Your task to perform on an android device: Clear the shopping cart on amazon. Image 0: 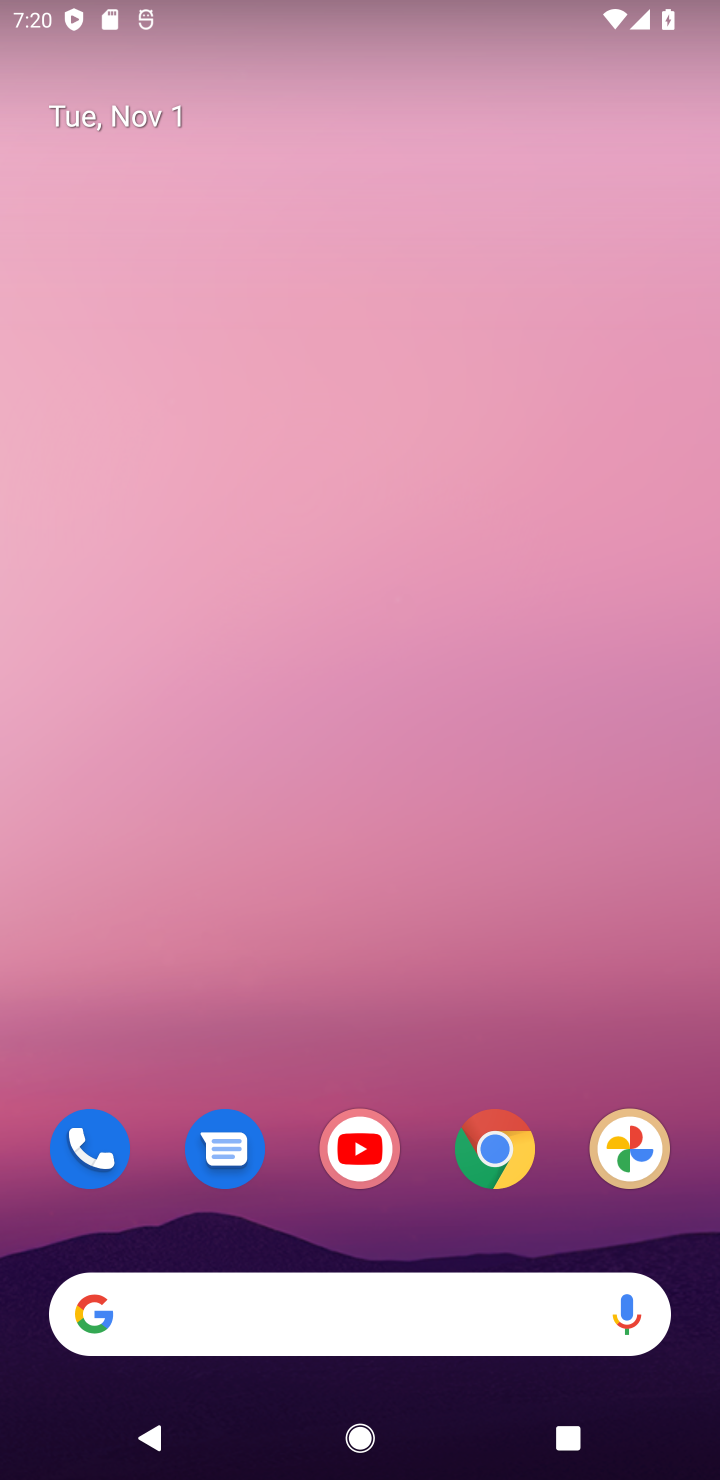
Step 0: drag from (467, 920) to (547, 156)
Your task to perform on an android device: Clear the shopping cart on amazon. Image 1: 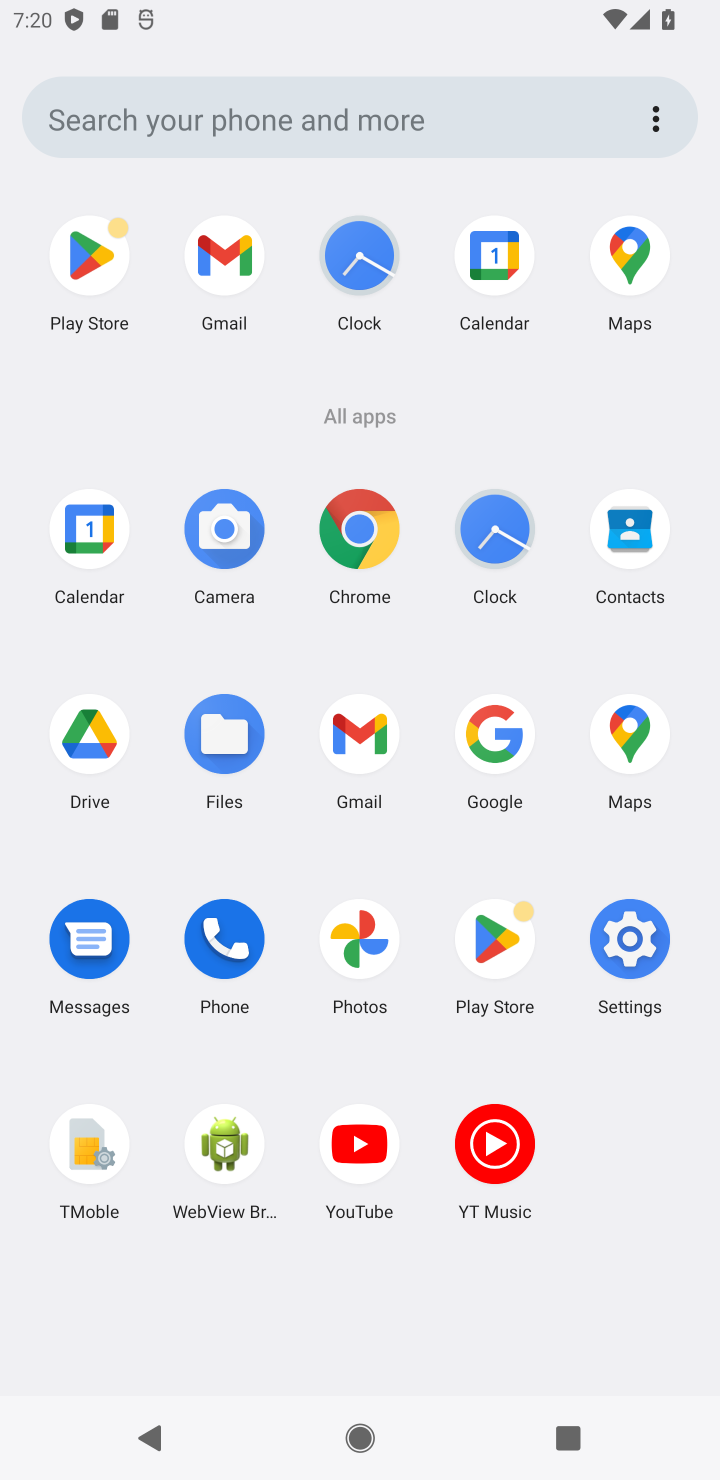
Step 1: click (362, 528)
Your task to perform on an android device: Clear the shopping cart on amazon. Image 2: 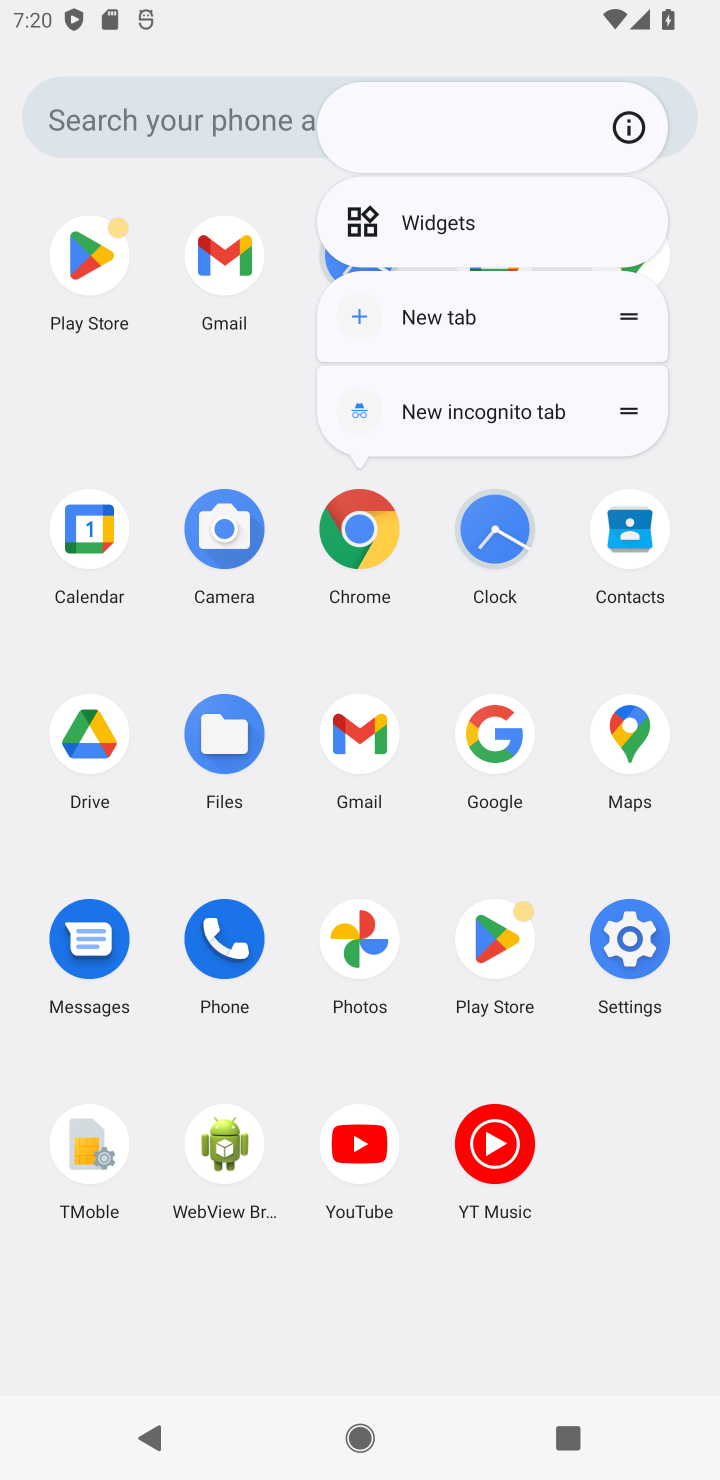
Step 2: click (362, 528)
Your task to perform on an android device: Clear the shopping cart on amazon. Image 3: 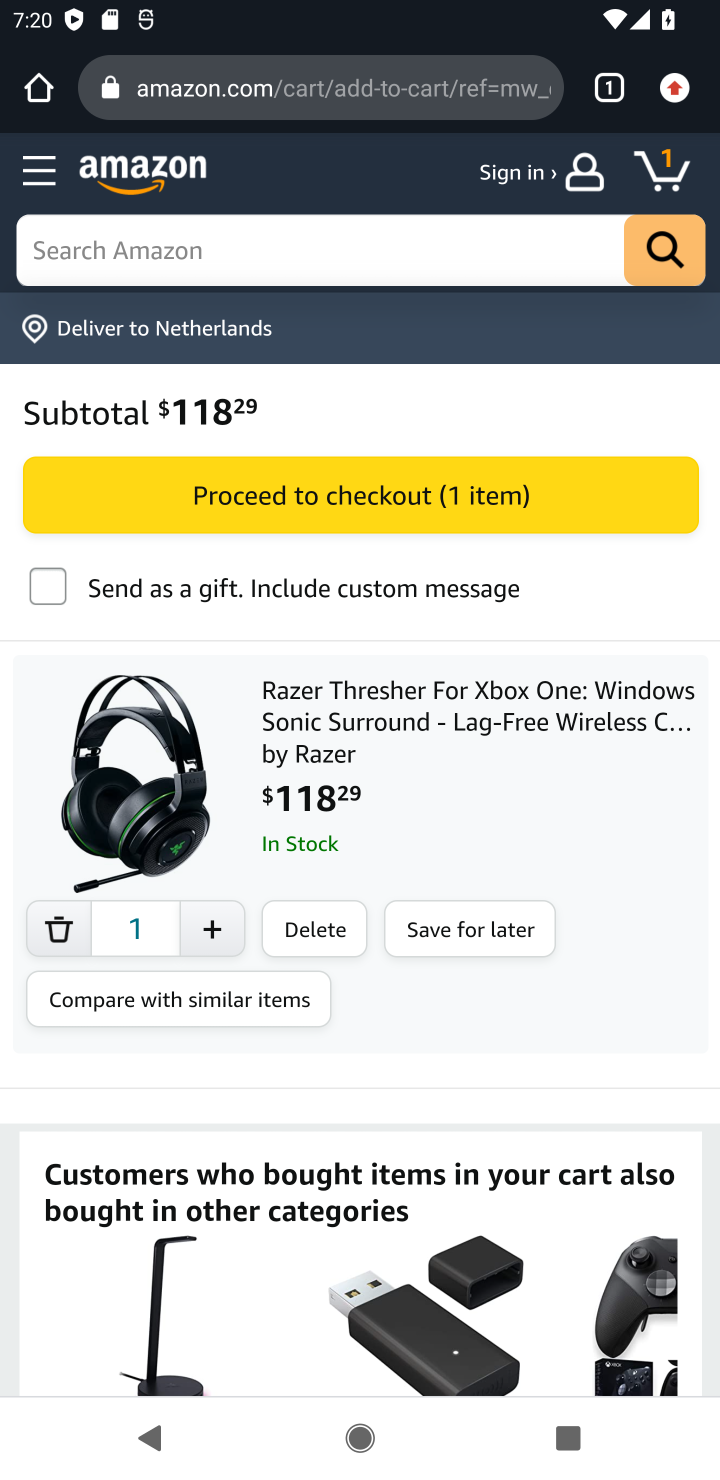
Step 3: click (363, 83)
Your task to perform on an android device: Clear the shopping cart on amazon. Image 4: 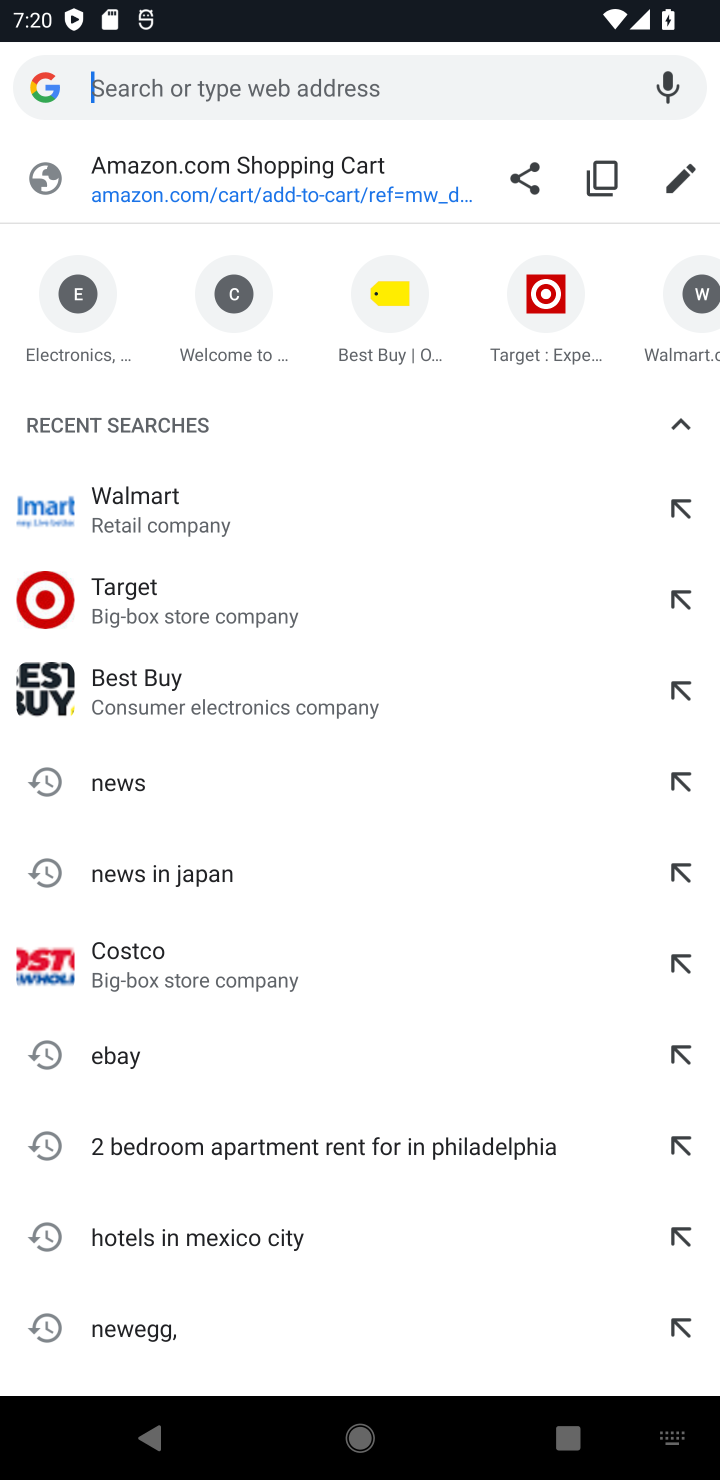
Step 4: type "amazon.com"
Your task to perform on an android device: Clear the shopping cart on amazon. Image 5: 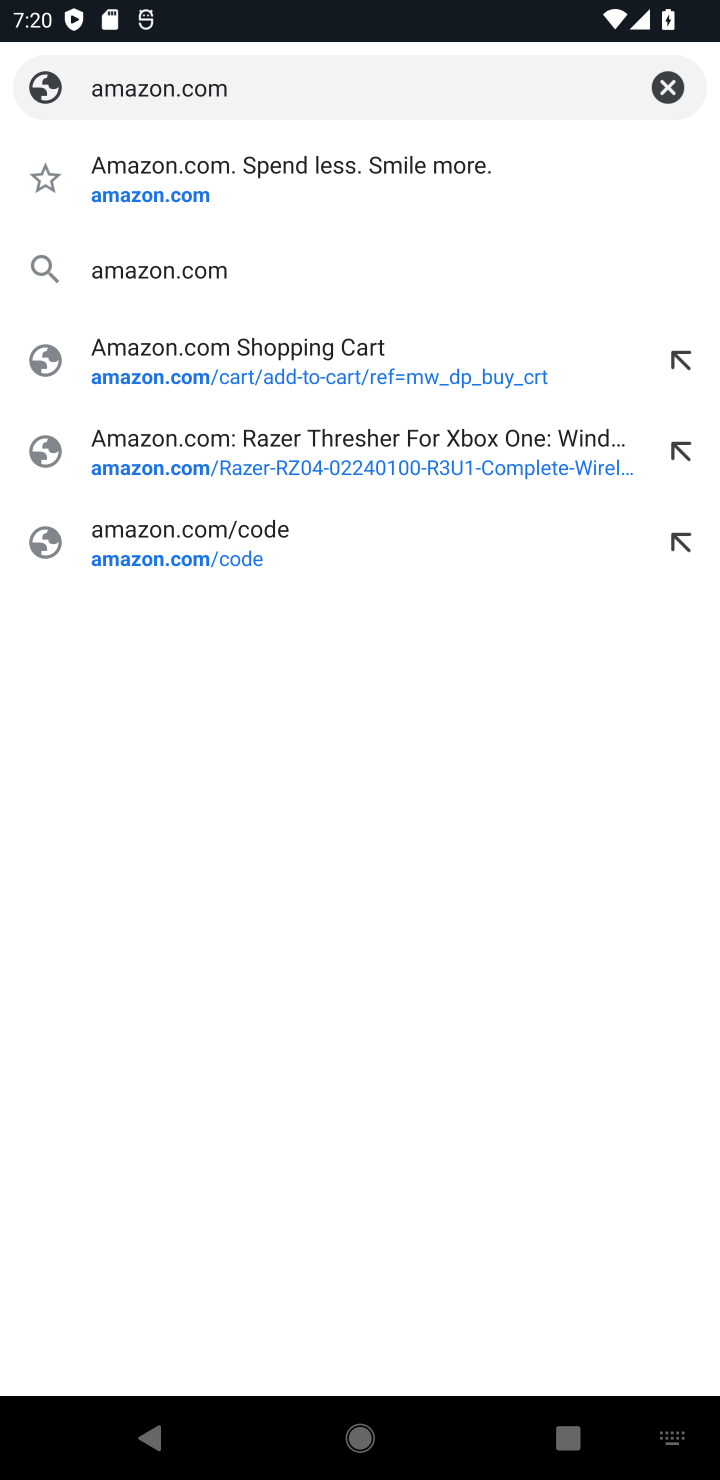
Step 5: press enter
Your task to perform on an android device: Clear the shopping cart on amazon. Image 6: 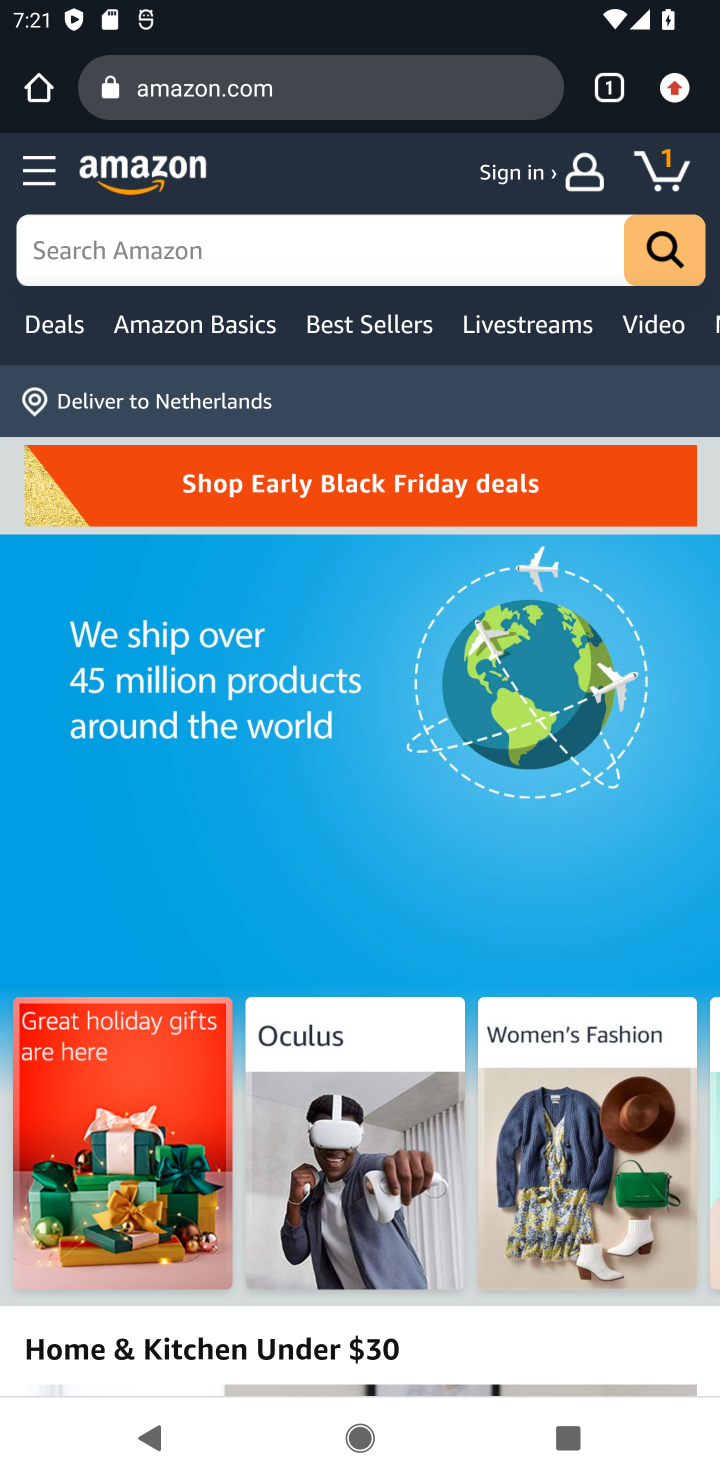
Step 6: click (657, 176)
Your task to perform on an android device: Clear the shopping cart on amazon. Image 7: 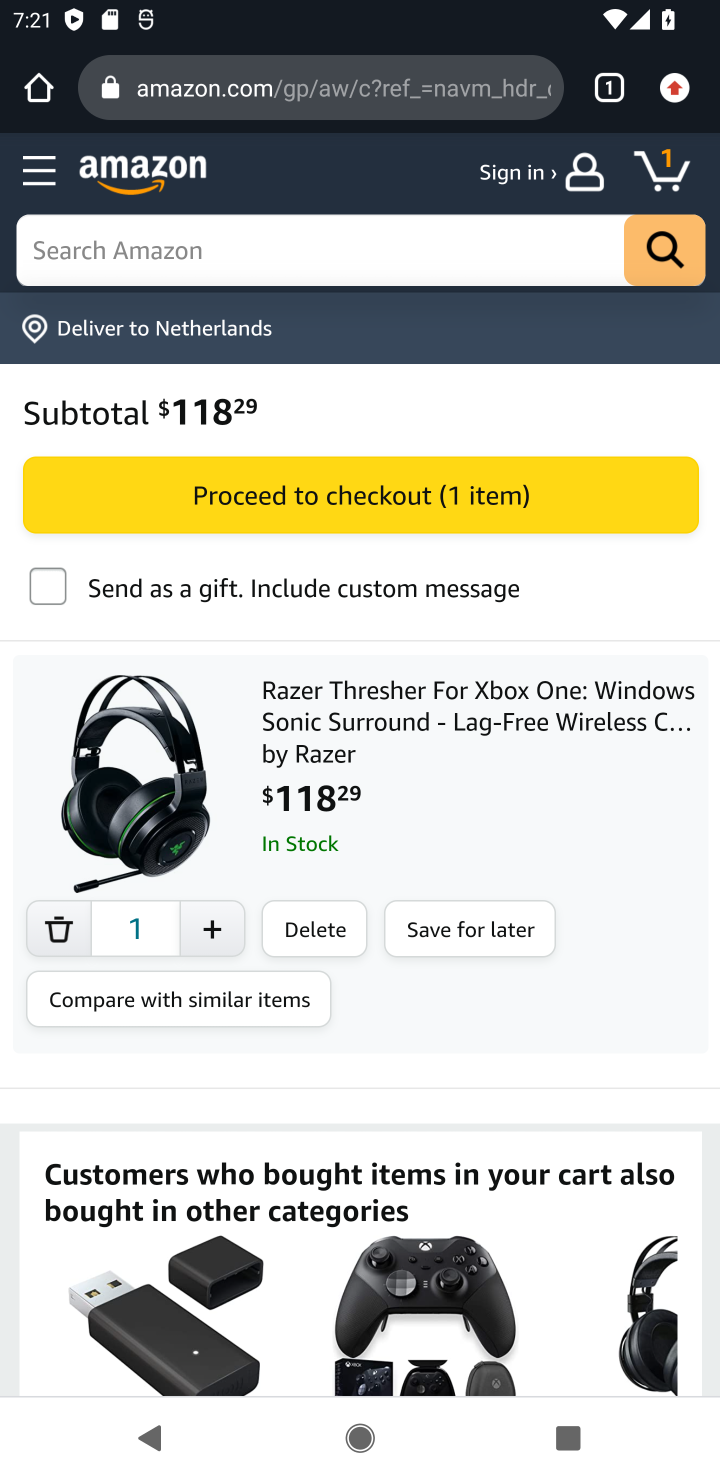
Step 7: click (46, 922)
Your task to perform on an android device: Clear the shopping cart on amazon. Image 8: 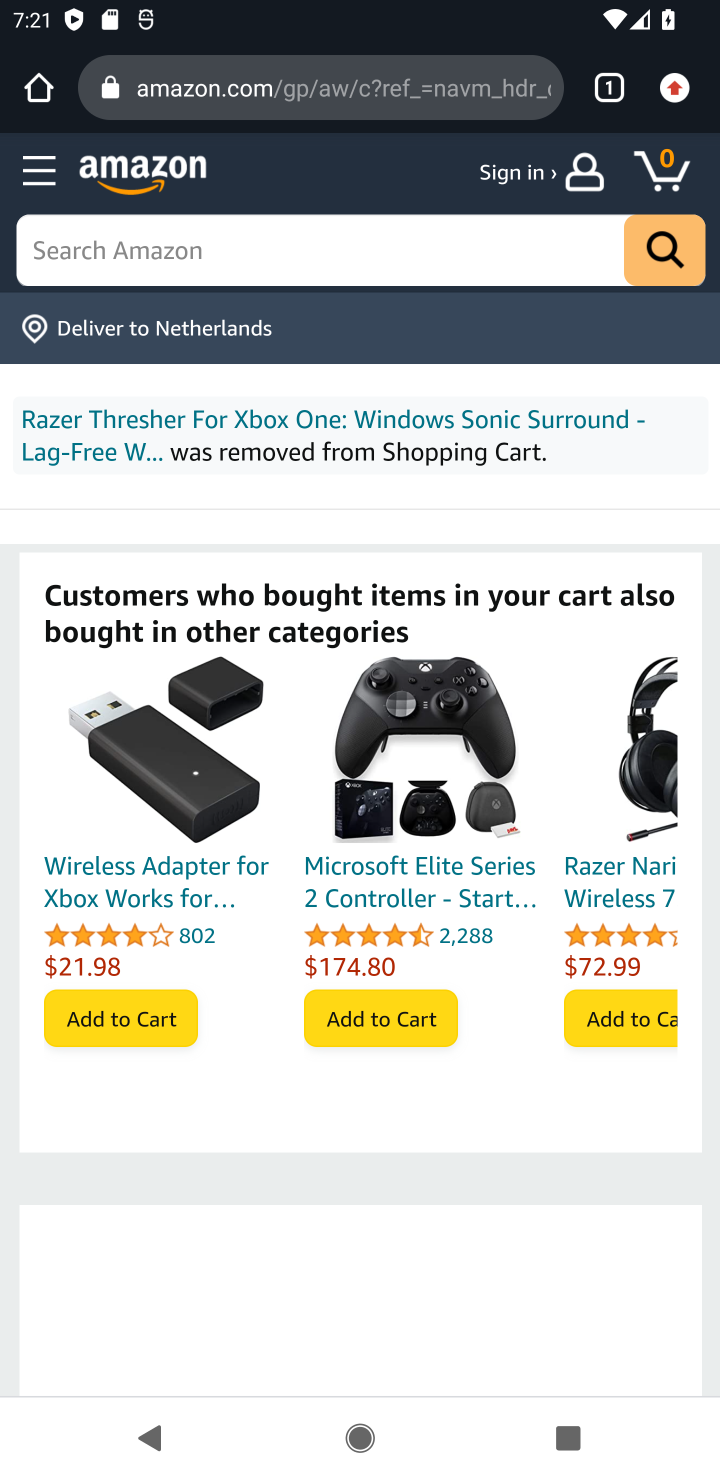
Step 8: task complete